Your task to perform on an android device: open a bookmark in the chrome app Image 0: 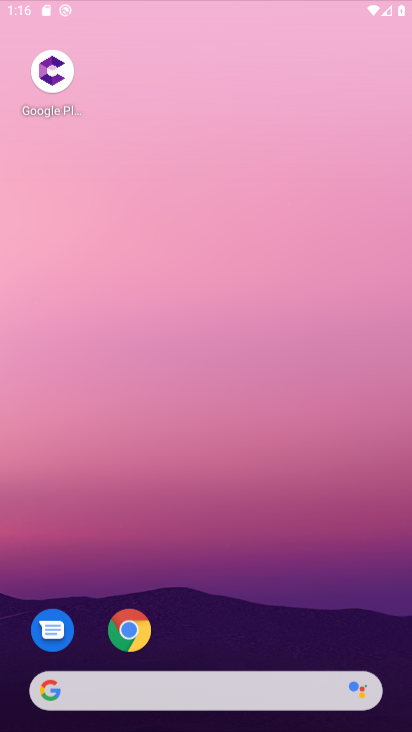
Step 0: drag from (267, 558) to (213, 233)
Your task to perform on an android device: open a bookmark in the chrome app Image 1: 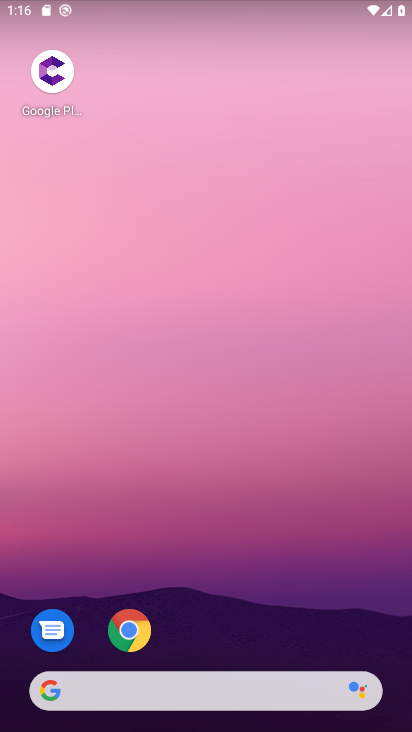
Step 1: click (126, 647)
Your task to perform on an android device: open a bookmark in the chrome app Image 2: 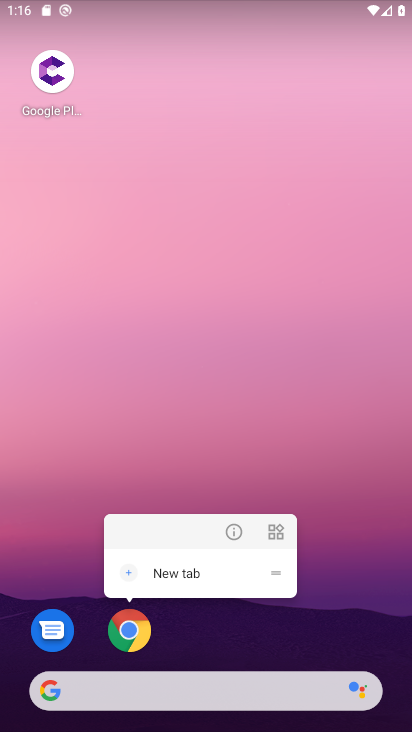
Step 2: click (126, 647)
Your task to perform on an android device: open a bookmark in the chrome app Image 3: 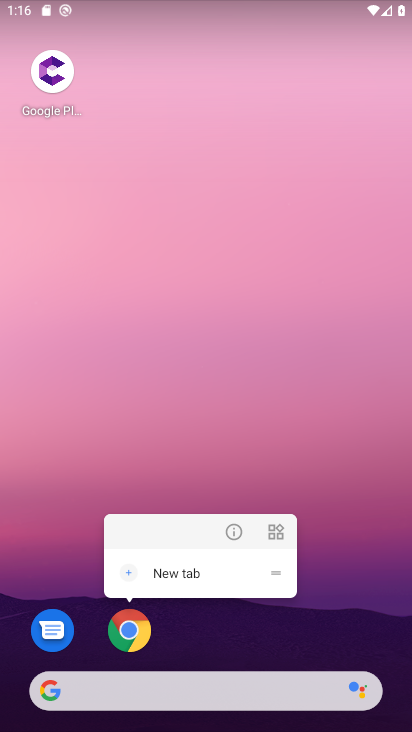
Step 3: click (126, 647)
Your task to perform on an android device: open a bookmark in the chrome app Image 4: 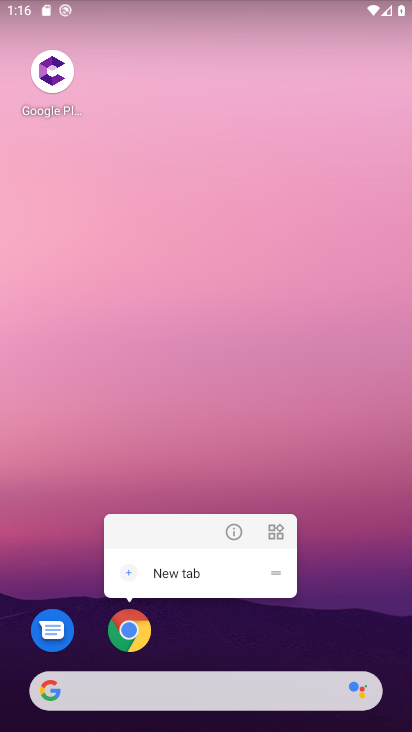
Step 4: click (126, 647)
Your task to perform on an android device: open a bookmark in the chrome app Image 5: 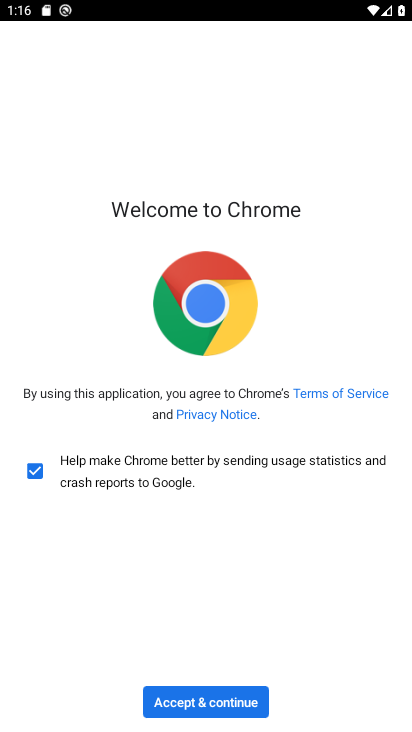
Step 5: click (237, 714)
Your task to perform on an android device: open a bookmark in the chrome app Image 6: 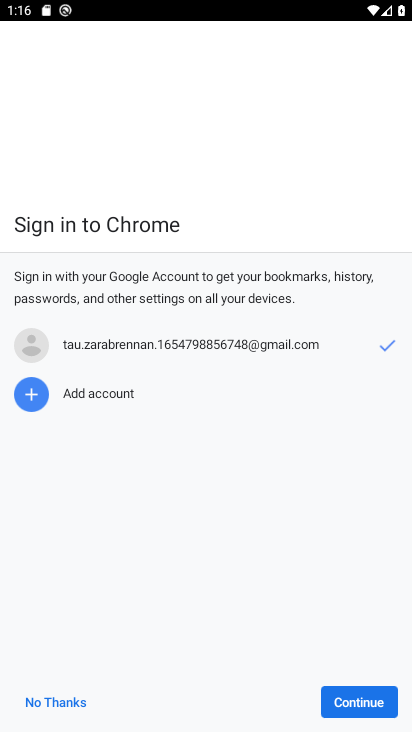
Step 6: click (380, 692)
Your task to perform on an android device: open a bookmark in the chrome app Image 7: 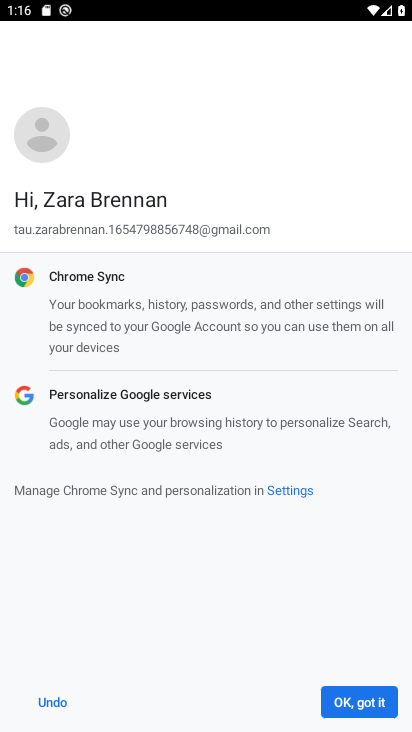
Step 7: click (361, 697)
Your task to perform on an android device: open a bookmark in the chrome app Image 8: 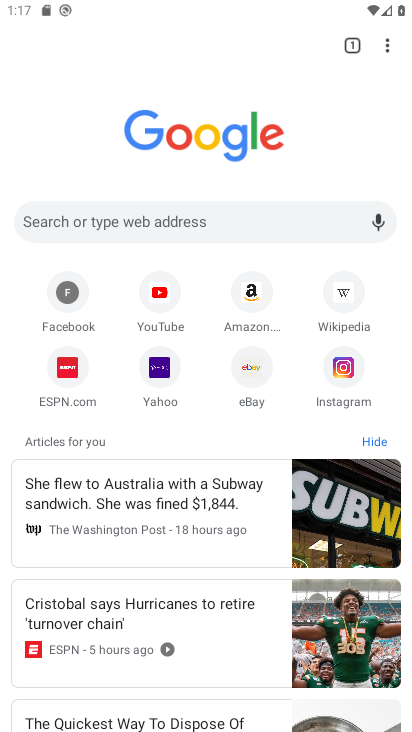
Step 8: task complete